Your task to perform on an android device: Open the map Image 0: 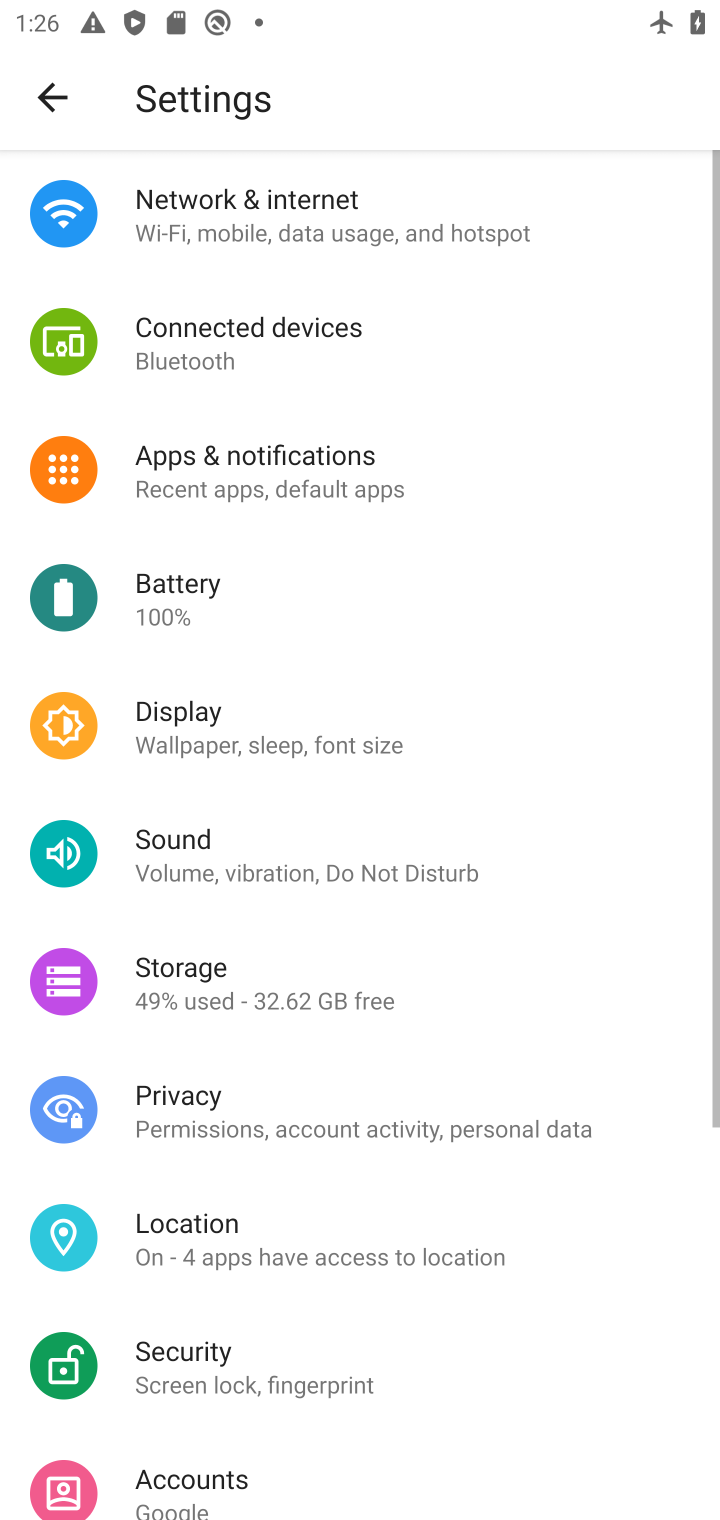
Step 0: press home button
Your task to perform on an android device: Open the map Image 1: 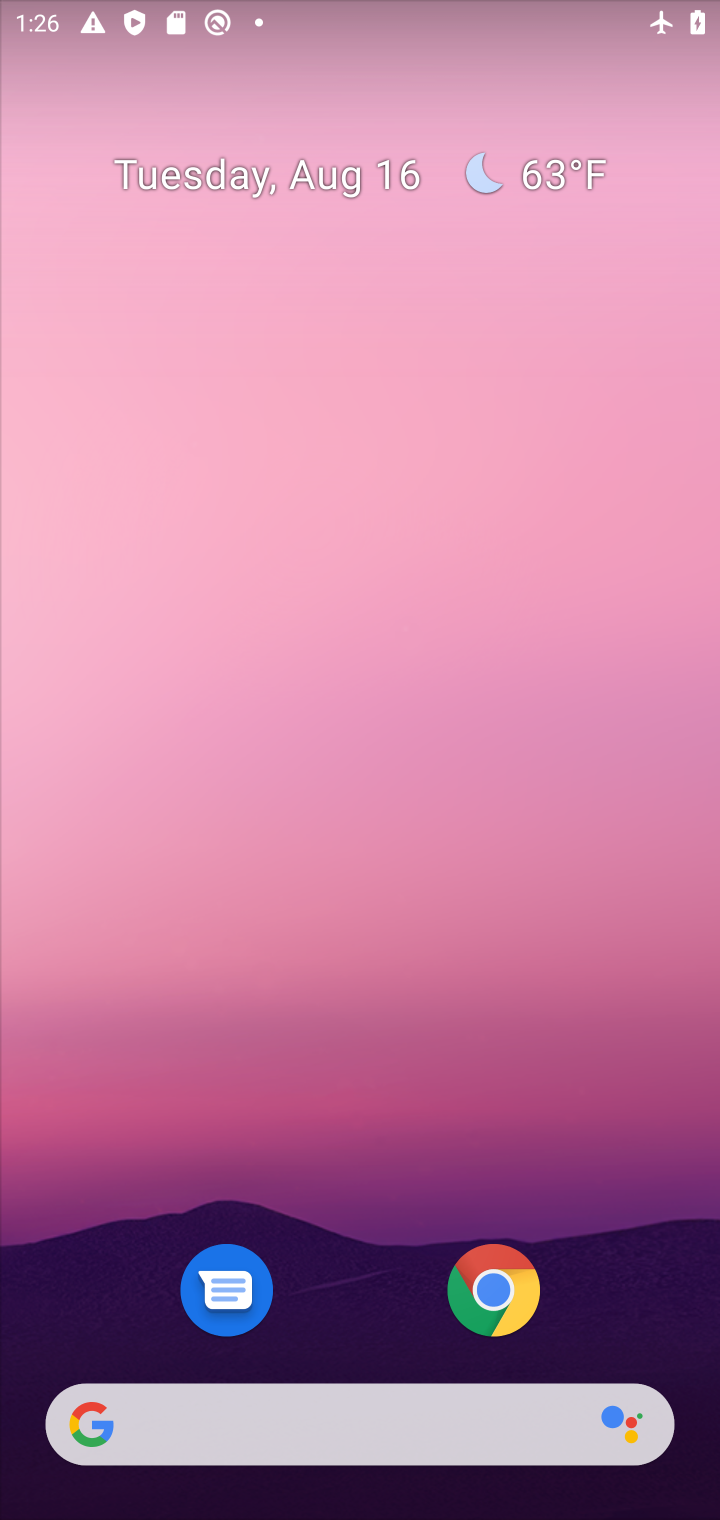
Step 1: drag from (93, 931) to (328, 223)
Your task to perform on an android device: Open the map Image 2: 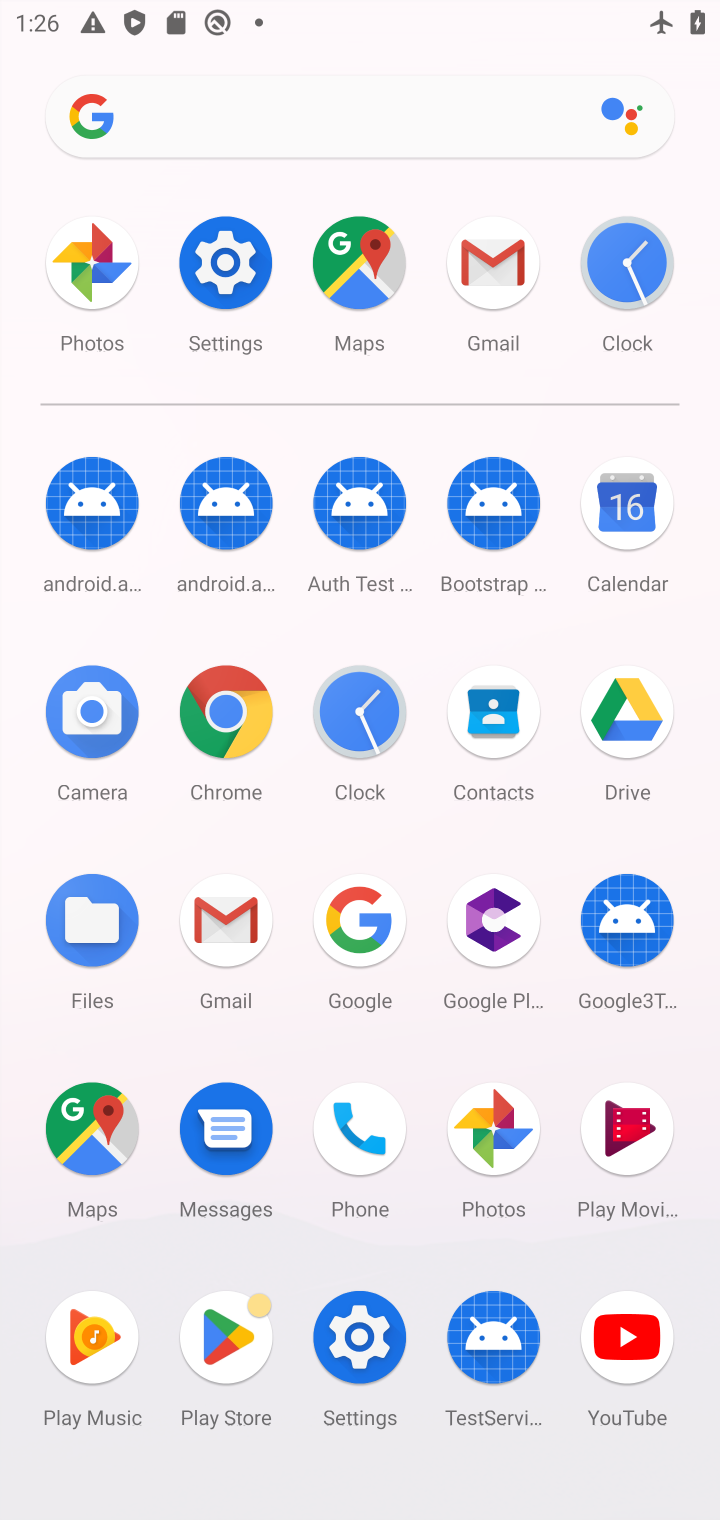
Step 2: click (374, 252)
Your task to perform on an android device: Open the map Image 3: 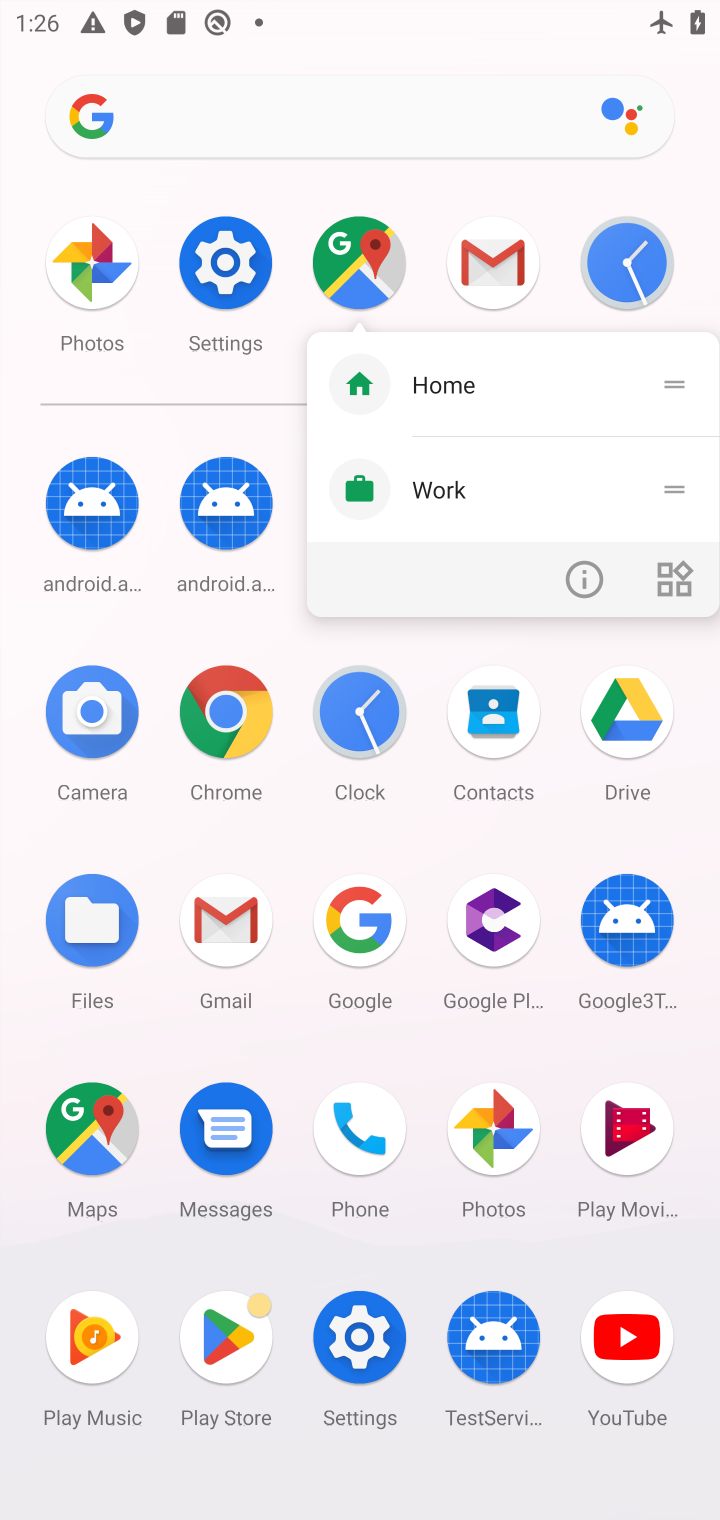
Step 3: click (344, 246)
Your task to perform on an android device: Open the map Image 4: 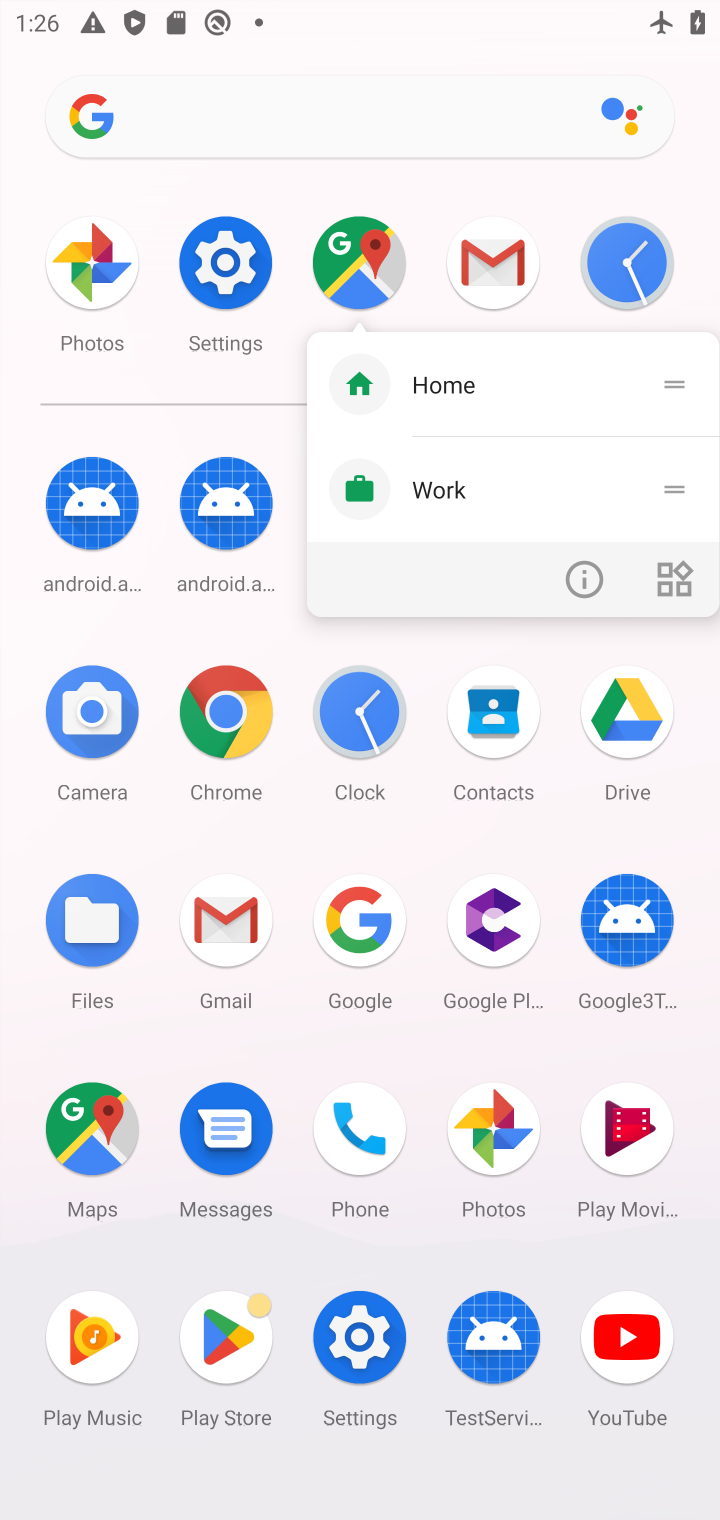
Step 4: click (353, 254)
Your task to perform on an android device: Open the map Image 5: 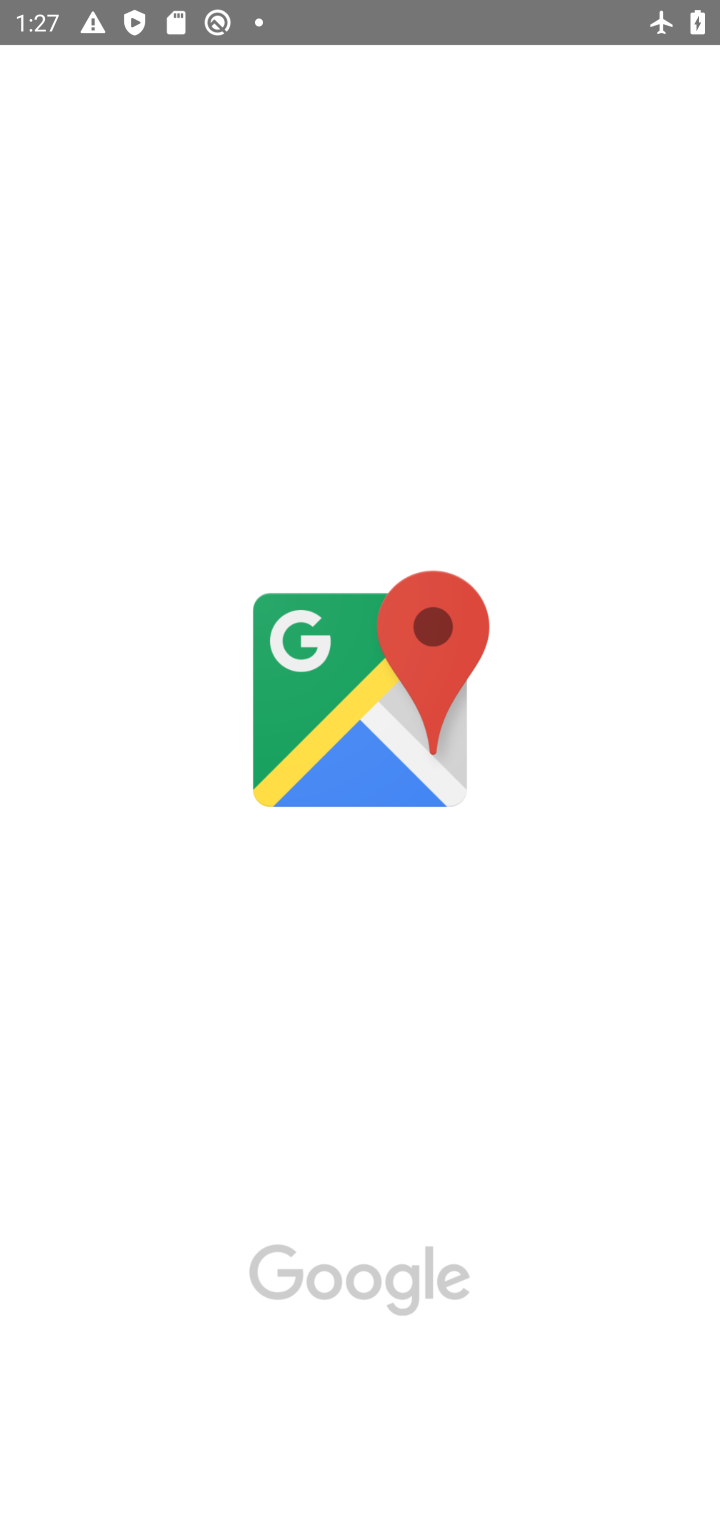
Step 5: task complete